Your task to perform on an android device: See recent photos Image 0: 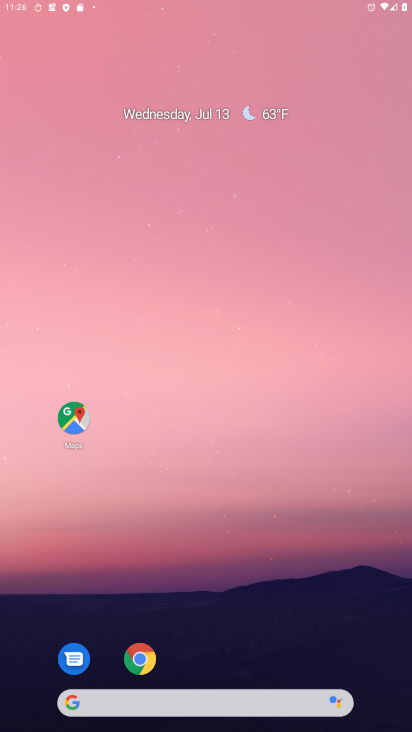
Step 0: drag from (262, 631) to (241, 148)
Your task to perform on an android device: See recent photos Image 1: 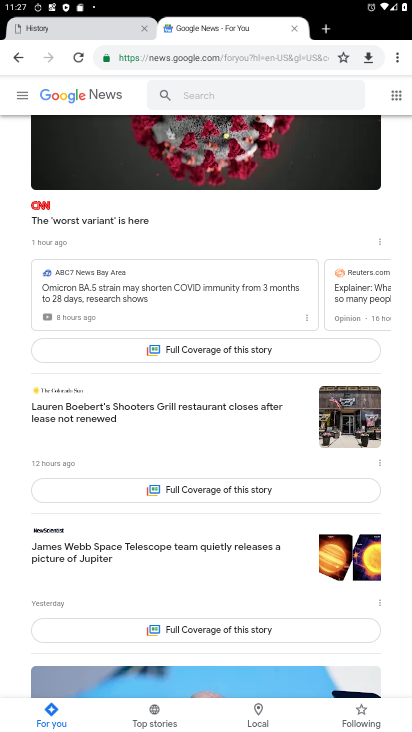
Step 1: press home button
Your task to perform on an android device: See recent photos Image 2: 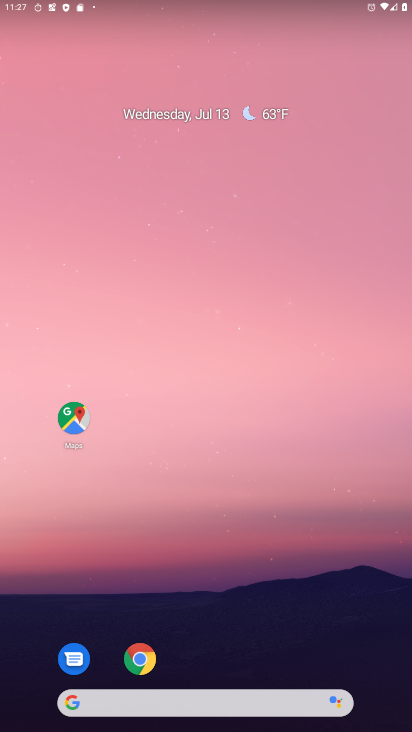
Step 2: drag from (251, 648) to (250, 119)
Your task to perform on an android device: See recent photos Image 3: 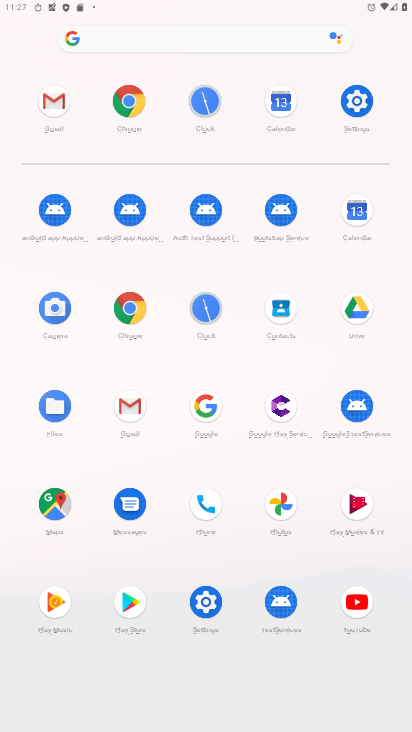
Step 3: click (287, 504)
Your task to perform on an android device: See recent photos Image 4: 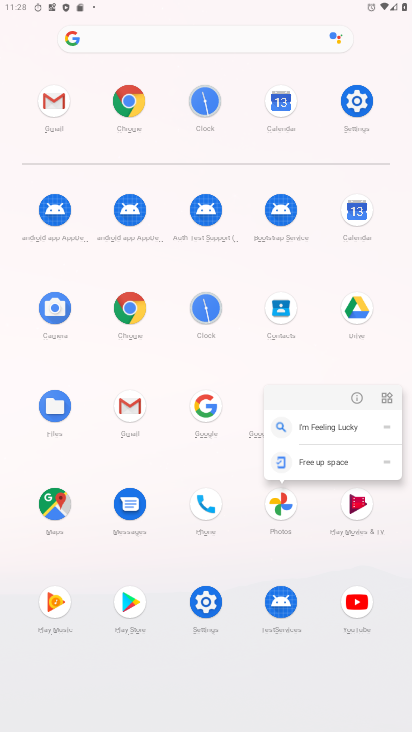
Step 4: click (287, 504)
Your task to perform on an android device: See recent photos Image 5: 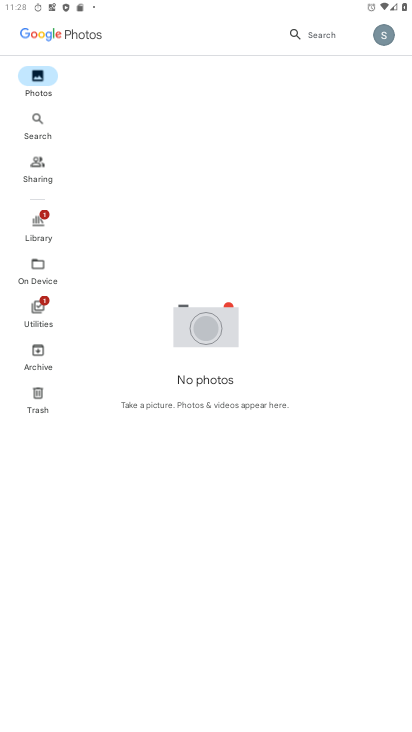
Step 5: task complete